Your task to perform on an android device: toggle wifi Image 0: 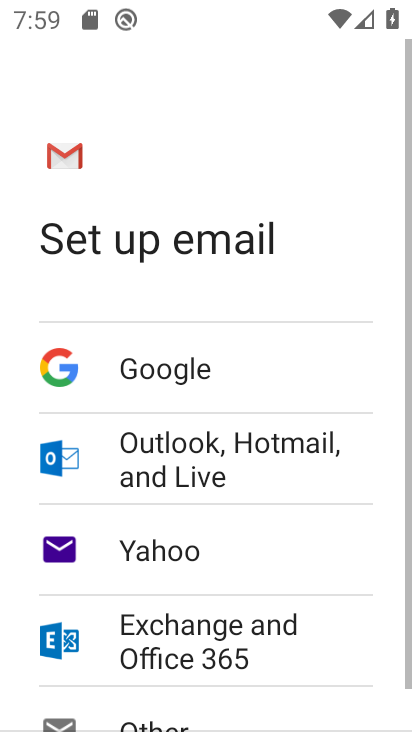
Step 0: press back button
Your task to perform on an android device: toggle wifi Image 1: 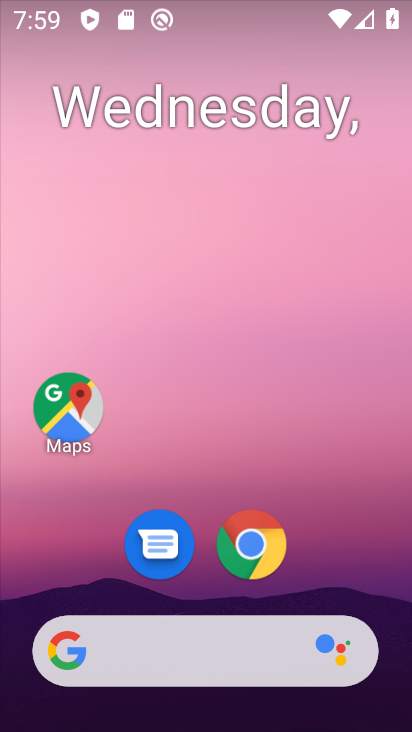
Step 1: drag from (304, 496) to (292, 50)
Your task to perform on an android device: toggle wifi Image 2: 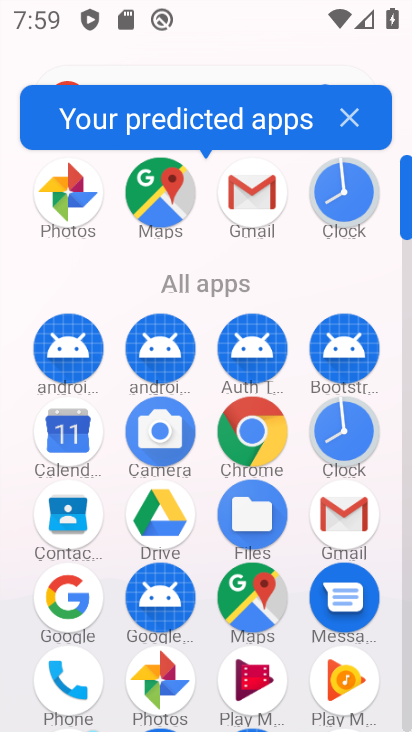
Step 2: drag from (13, 560) to (17, 333)
Your task to perform on an android device: toggle wifi Image 3: 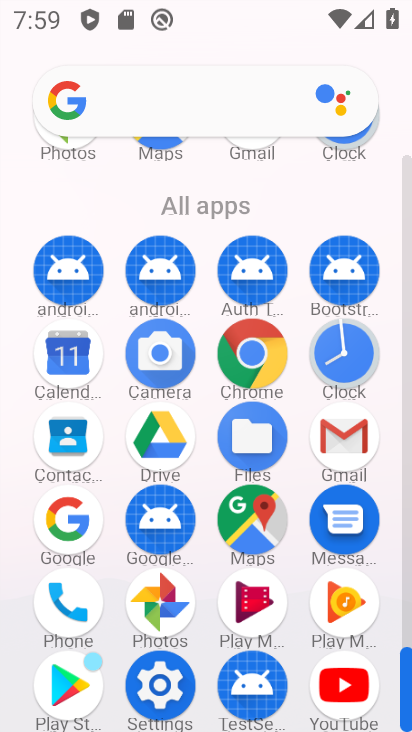
Step 3: click (153, 692)
Your task to perform on an android device: toggle wifi Image 4: 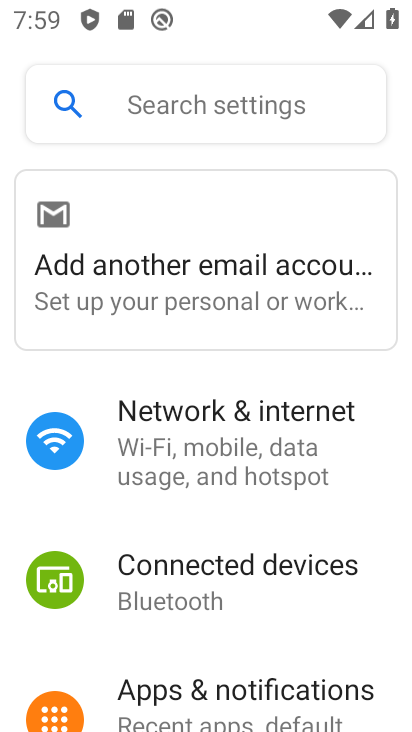
Step 4: click (243, 444)
Your task to perform on an android device: toggle wifi Image 5: 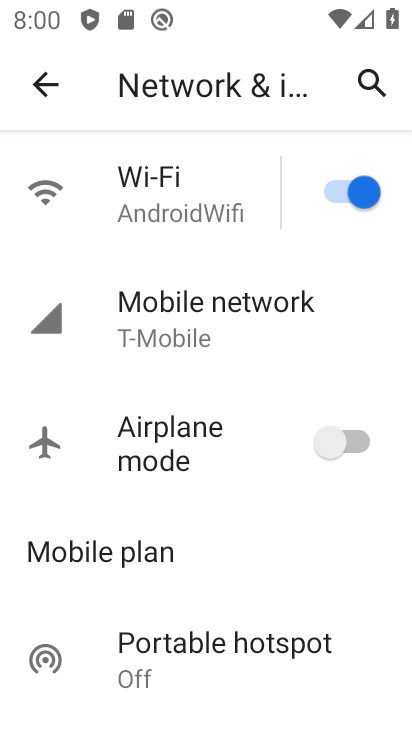
Step 5: drag from (233, 484) to (238, 227)
Your task to perform on an android device: toggle wifi Image 6: 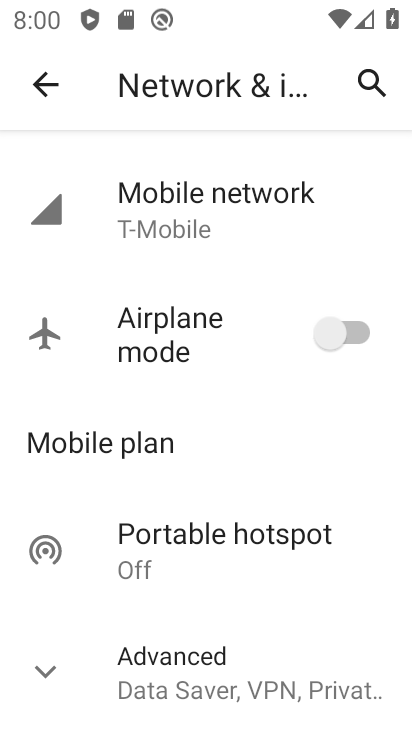
Step 6: drag from (237, 225) to (229, 555)
Your task to perform on an android device: toggle wifi Image 7: 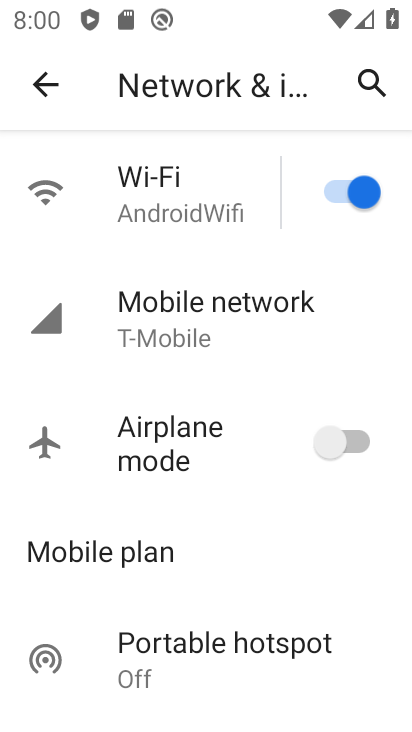
Step 7: click (348, 184)
Your task to perform on an android device: toggle wifi Image 8: 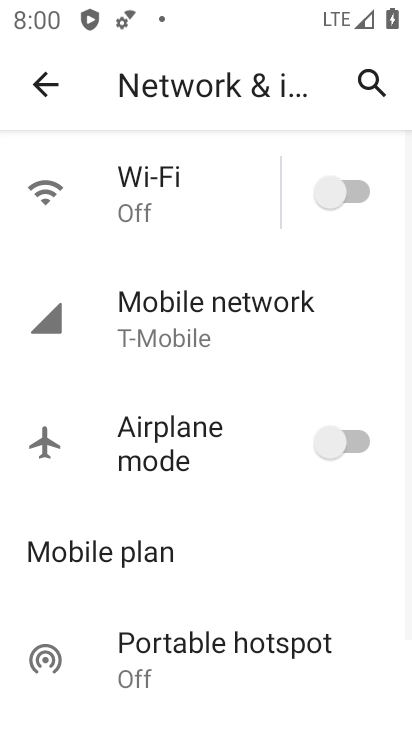
Step 8: task complete